Your task to perform on an android device: refresh tabs in the chrome app Image 0: 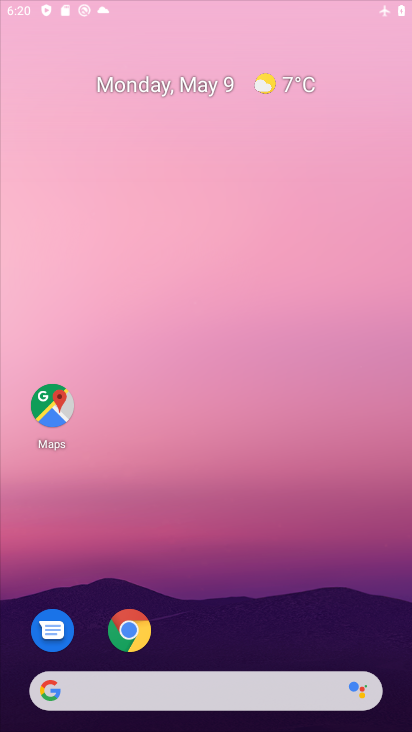
Step 0: click (215, 89)
Your task to perform on an android device: refresh tabs in the chrome app Image 1: 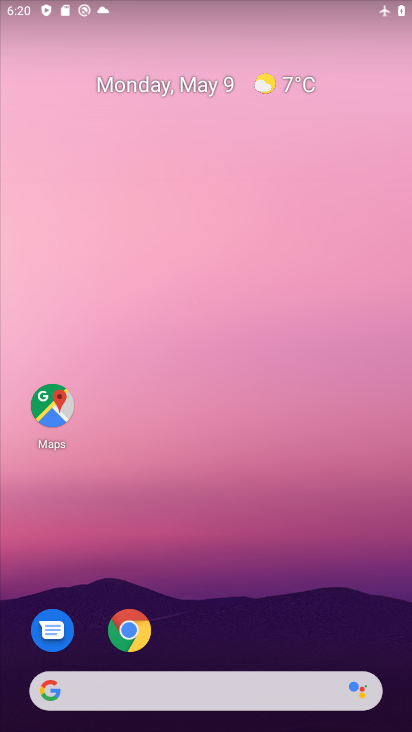
Step 1: click (146, 645)
Your task to perform on an android device: refresh tabs in the chrome app Image 2: 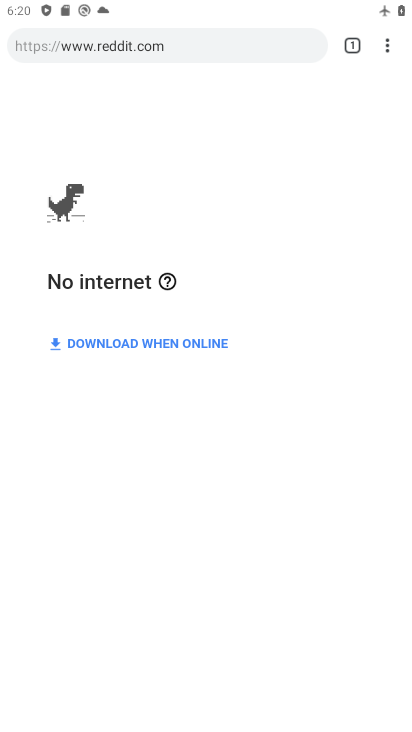
Step 2: click (389, 47)
Your task to perform on an android device: refresh tabs in the chrome app Image 3: 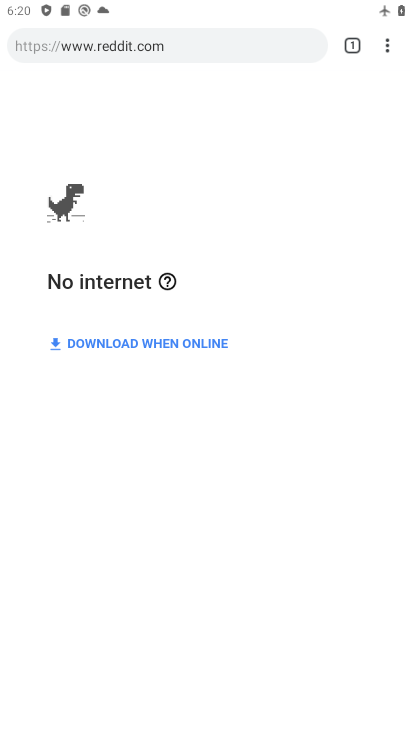
Step 3: click (390, 47)
Your task to perform on an android device: refresh tabs in the chrome app Image 4: 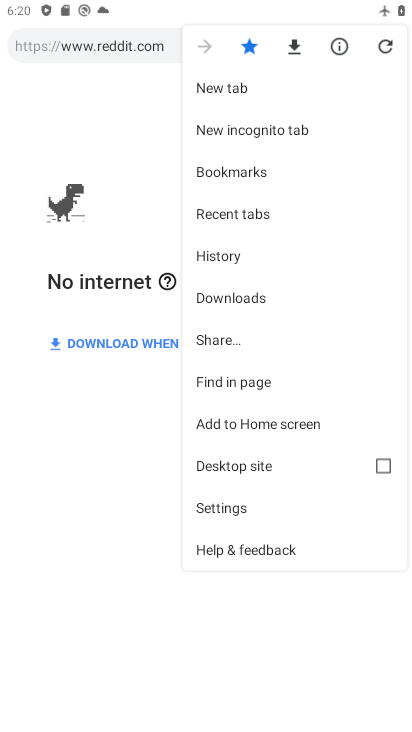
Step 4: click (383, 53)
Your task to perform on an android device: refresh tabs in the chrome app Image 5: 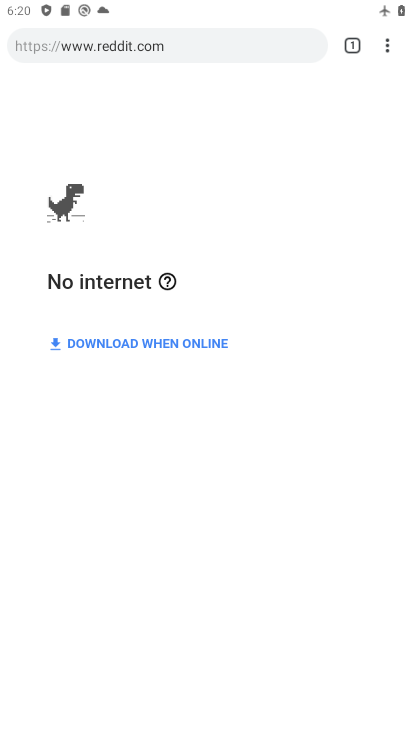
Step 5: task complete